Your task to perform on an android device: Open eBay Image 0: 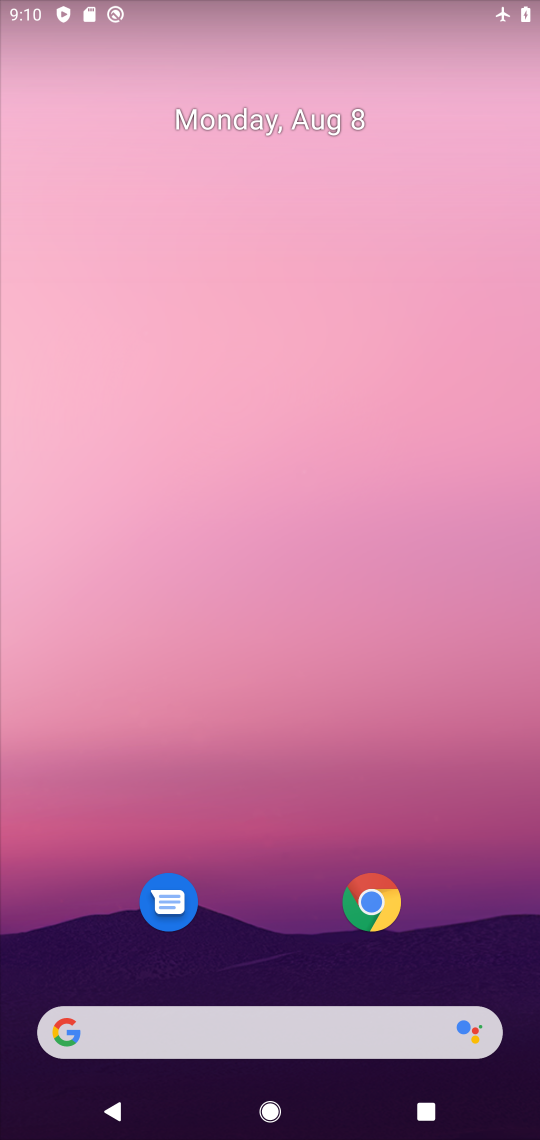
Step 0: drag from (302, 933) to (423, 32)
Your task to perform on an android device: Open eBay Image 1: 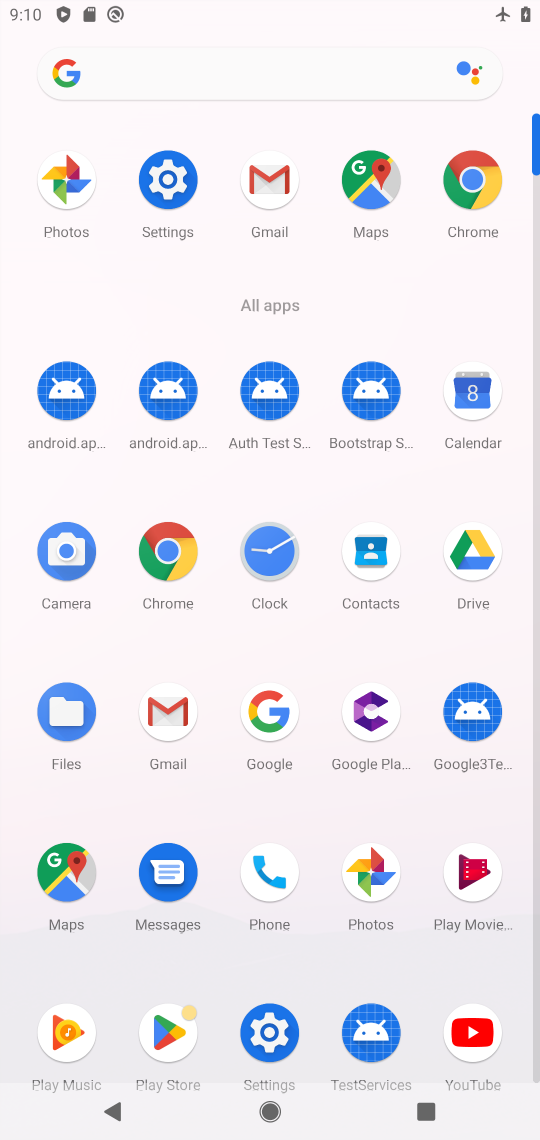
Step 1: click (473, 173)
Your task to perform on an android device: Open eBay Image 2: 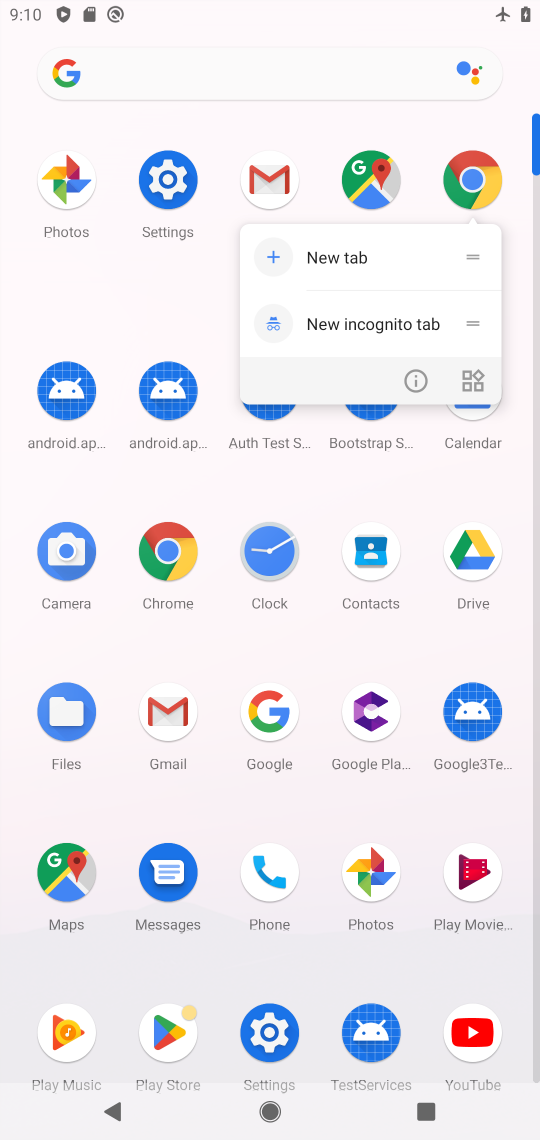
Step 2: click (451, 177)
Your task to perform on an android device: Open eBay Image 3: 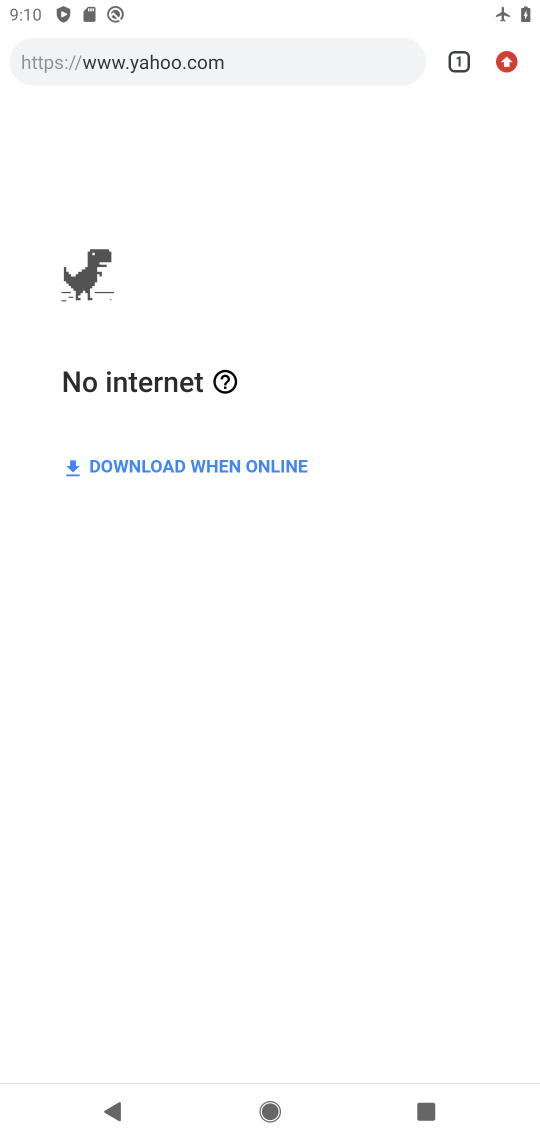
Step 3: click (467, 54)
Your task to perform on an android device: Open eBay Image 4: 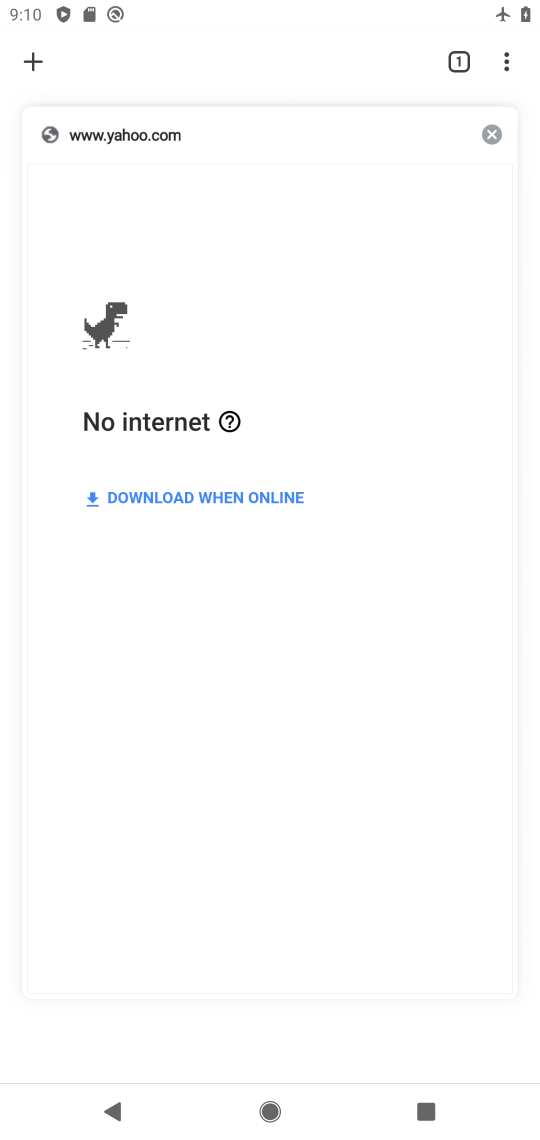
Step 4: click (33, 71)
Your task to perform on an android device: Open eBay Image 5: 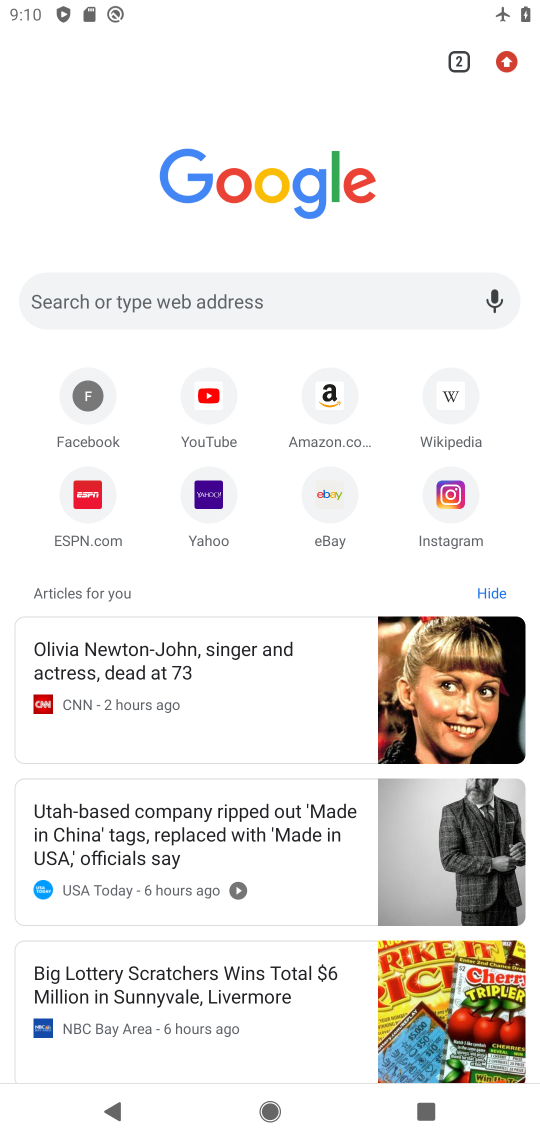
Step 5: click (314, 511)
Your task to perform on an android device: Open eBay Image 6: 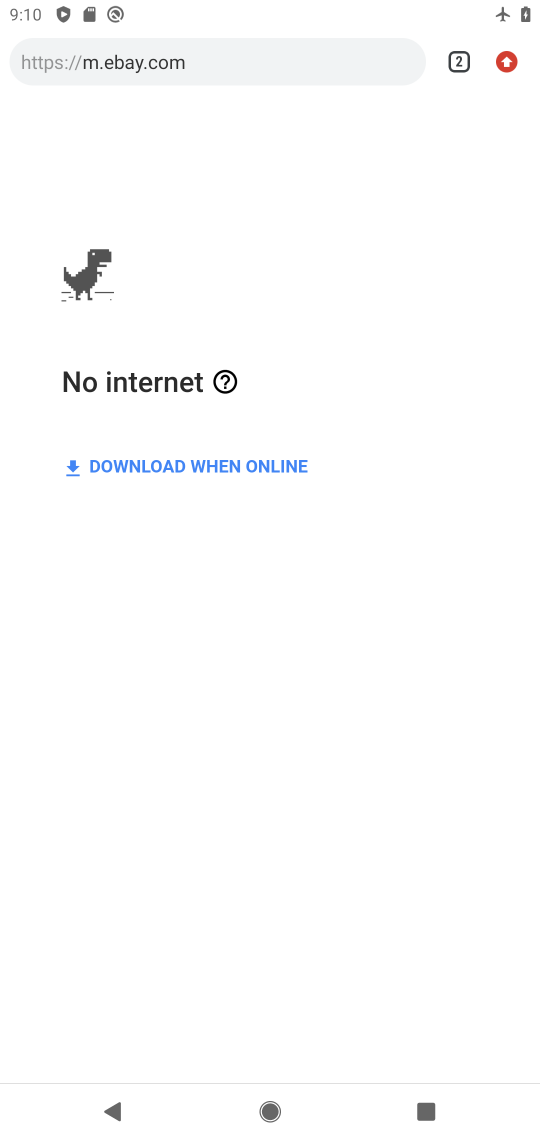
Step 6: task complete